Your task to perform on an android device: add a contact Image 0: 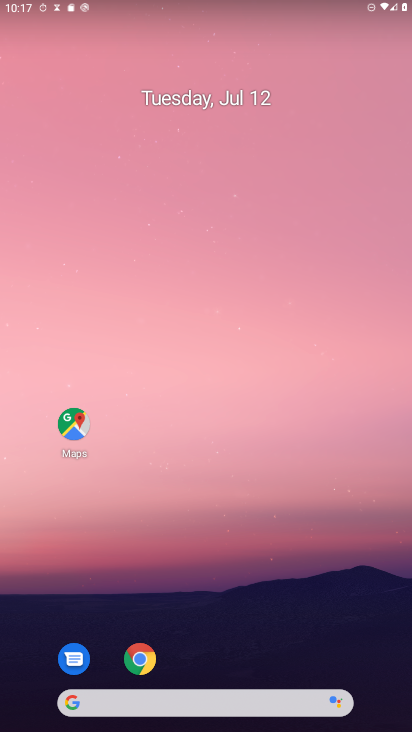
Step 0: drag from (192, 703) to (251, 232)
Your task to perform on an android device: add a contact Image 1: 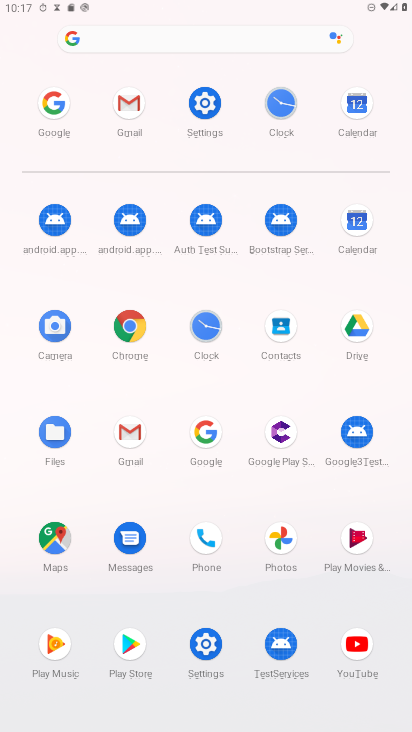
Step 1: click (285, 324)
Your task to perform on an android device: add a contact Image 2: 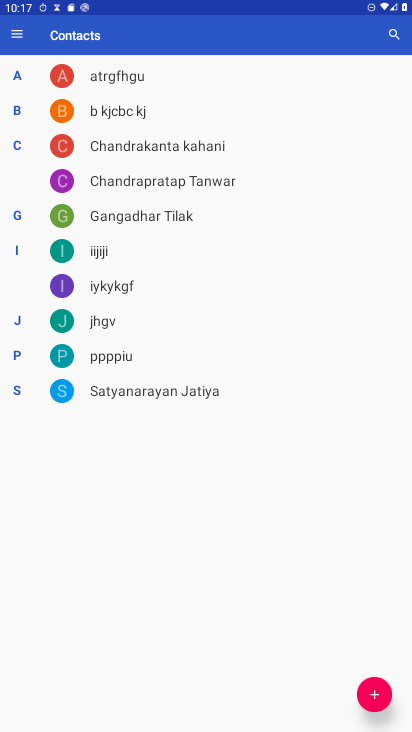
Step 2: click (372, 690)
Your task to perform on an android device: add a contact Image 3: 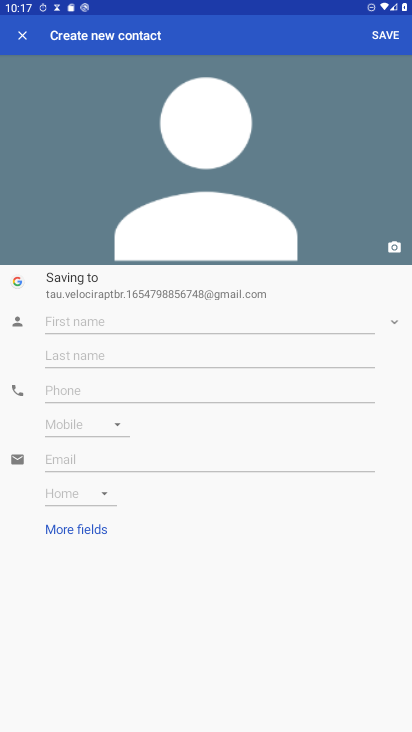
Step 3: click (273, 323)
Your task to perform on an android device: add a contact Image 4: 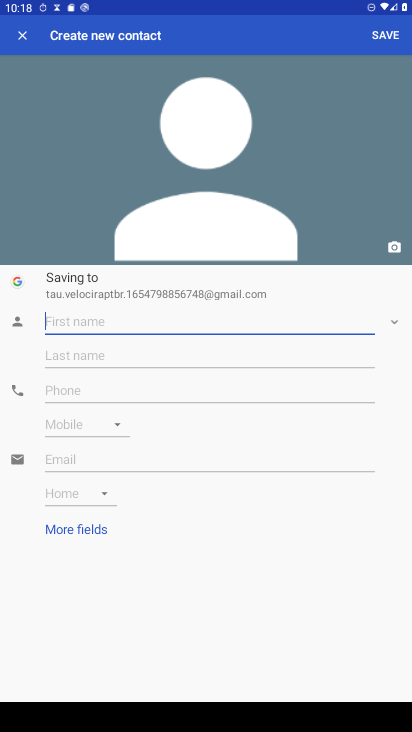
Step 4: type "Balasubhraamaniyam"
Your task to perform on an android device: add a contact Image 5: 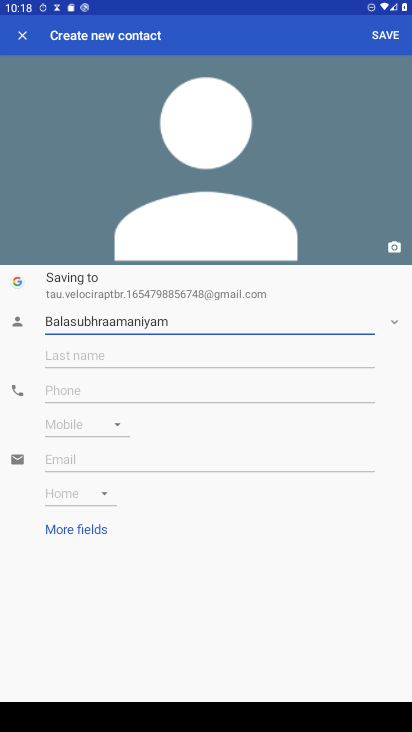
Step 5: click (195, 352)
Your task to perform on an android device: add a contact Image 6: 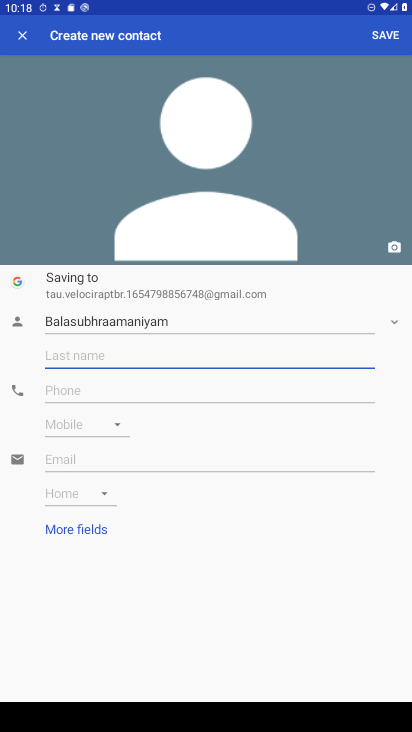
Step 6: type "Swami"
Your task to perform on an android device: add a contact Image 7: 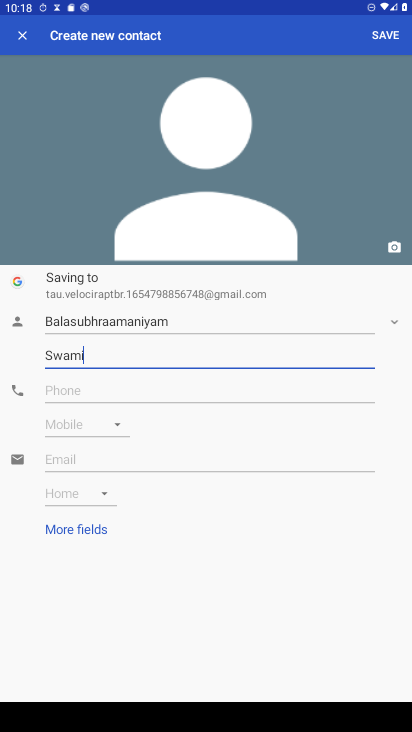
Step 7: click (237, 396)
Your task to perform on an android device: add a contact Image 8: 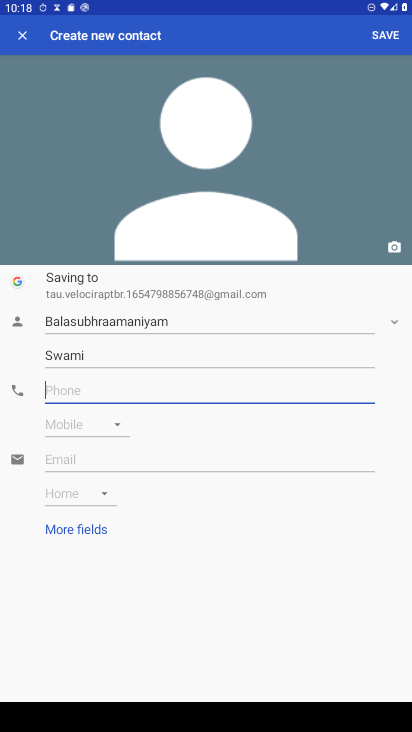
Step 8: type "09988776655"
Your task to perform on an android device: add a contact Image 9: 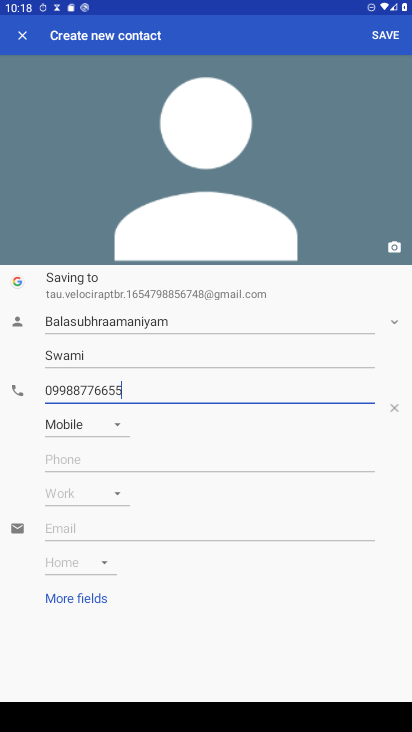
Step 9: click (387, 32)
Your task to perform on an android device: add a contact Image 10: 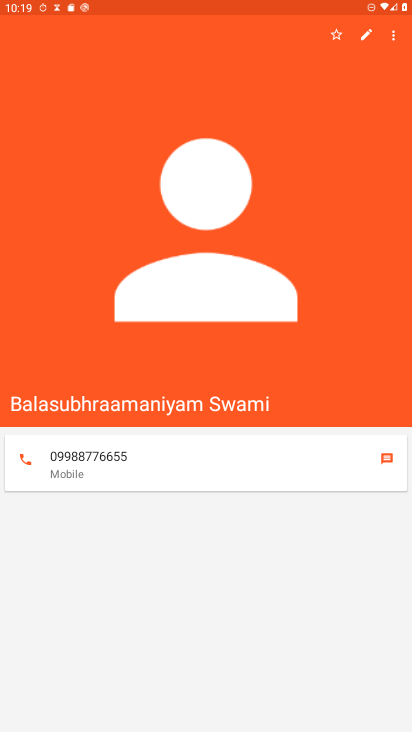
Step 10: task complete